Your task to perform on an android device: toggle data saver in the chrome app Image 0: 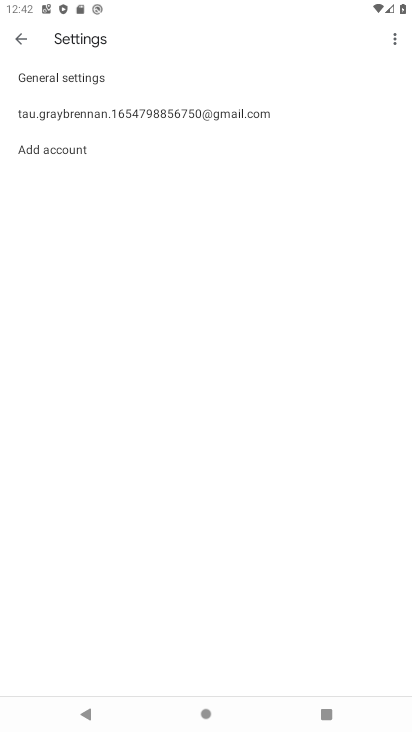
Step 0: press home button
Your task to perform on an android device: toggle data saver in the chrome app Image 1: 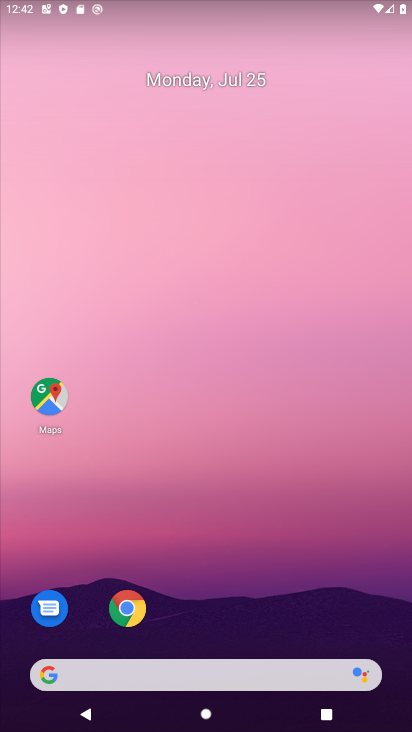
Step 1: drag from (273, 242) to (296, 12)
Your task to perform on an android device: toggle data saver in the chrome app Image 2: 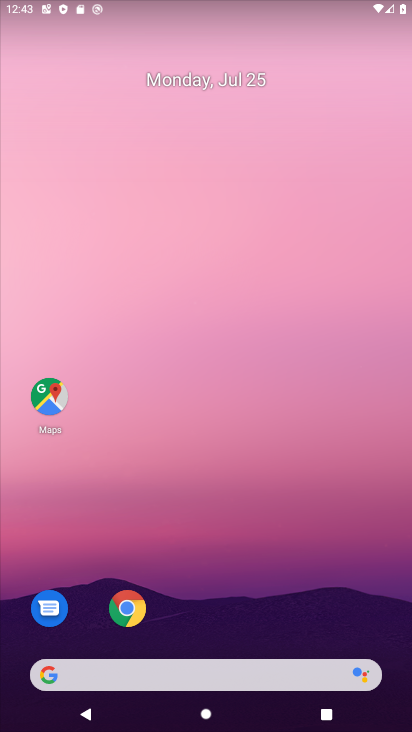
Step 2: drag from (190, 598) to (248, 76)
Your task to perform on an android device: toggle data saver in the chrome app Image 3: 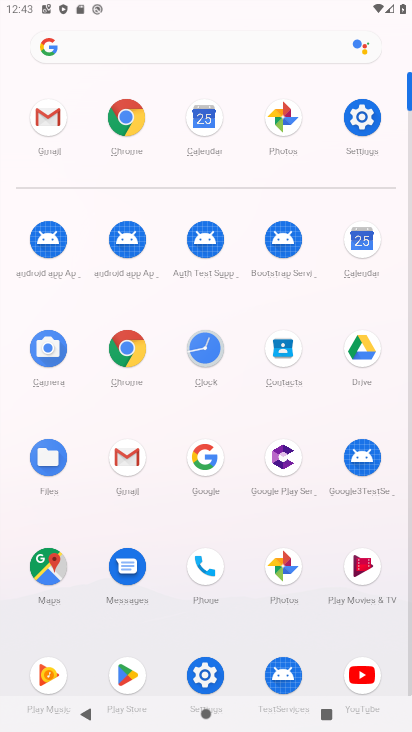
Step 3: click (124, 359)
Your task to perform on an android device: toggle data saver in the chrome app Image 4: 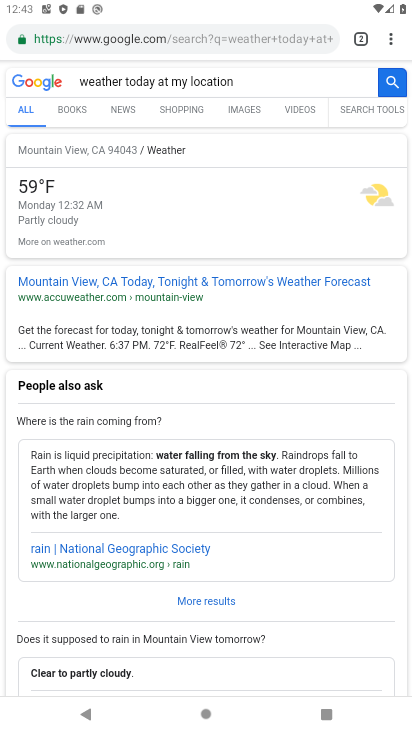
Step 4: click (389, 30)
Your task to perform on an android device: toggle data saver in the chrome app Image 5: 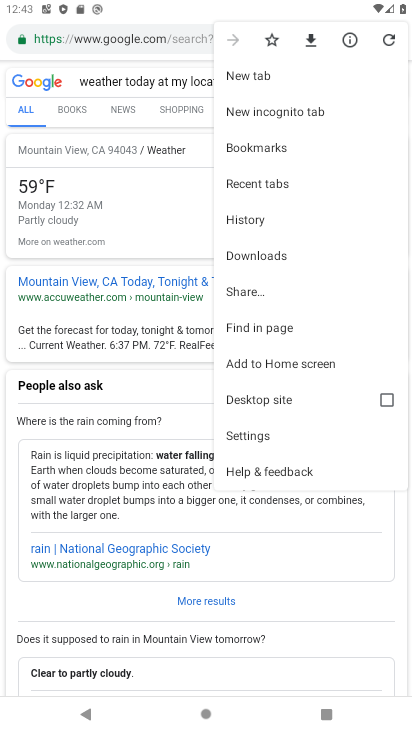
Step 5: click (270, 445)
Your task to perform on an android device: toggle data saver in the chrome app Image 6: 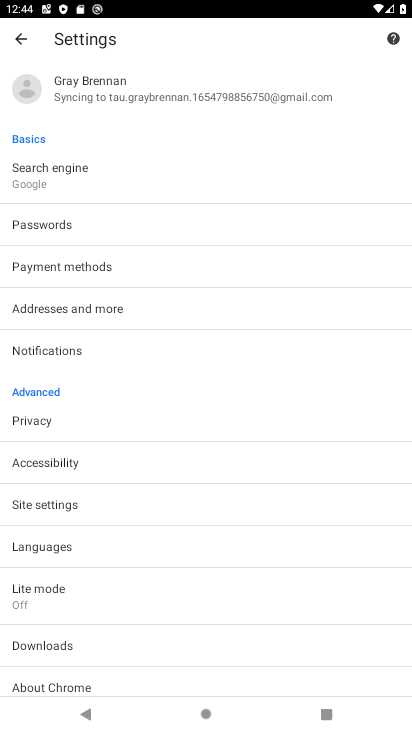
Step 6: click (98, 606)
Your task to perform on an android device: toggle data saver in the chrome app Image 7: 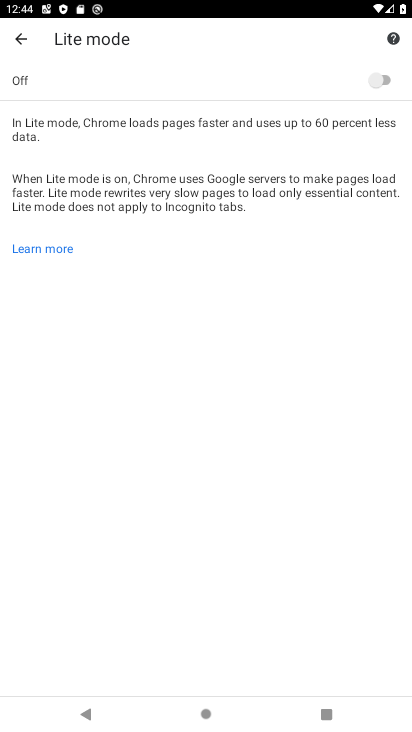
Step 7: click (385, 79)
Your task to perform on an android device: toggle data saver in the chrome app Image 8: 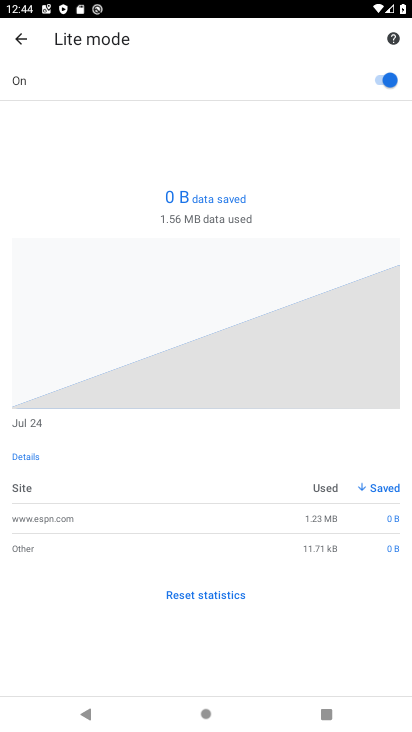
Step 8: task complete